Your task to perform on an android device: Open accessibility settings Image 0: 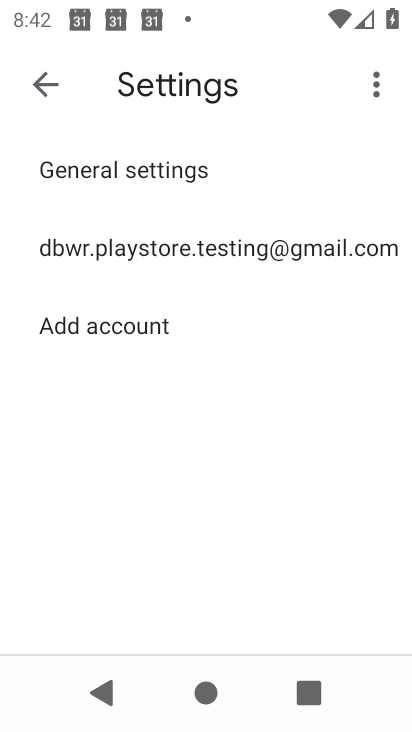
Step 0: press home button
Your task to perform on an android device: Open accessibility settings Image 1: 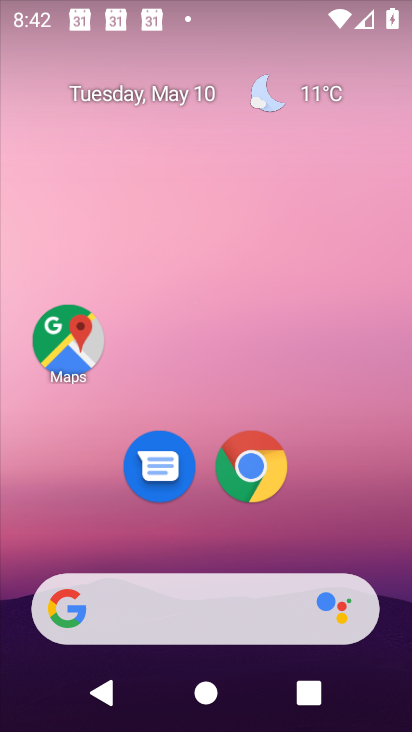
Step 1: drag from (221, 527) to (219, 11)
Your task to perform on an android device: Open accessibility settings Image 2: 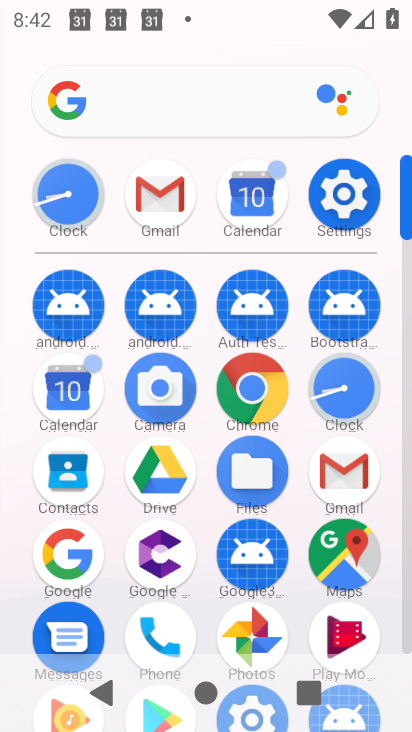
Step 2: click (358, 216)
Your task to perform on an android device: Open accessibility settings Image 3: 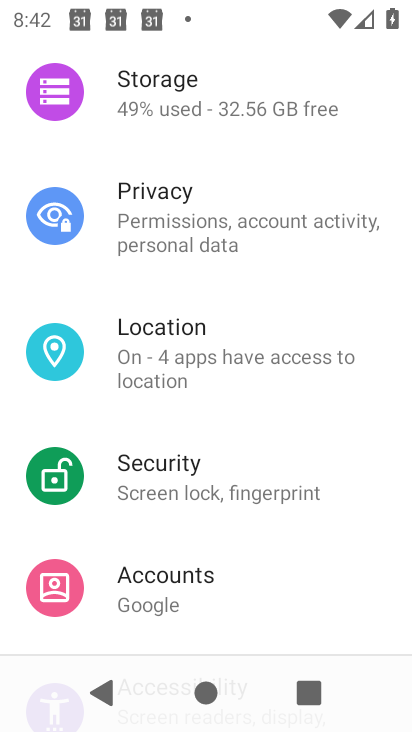
Step 3: drag from (226, 568) to (265, 190)
Your task to perform on an android device: Open accessibility settings Image 4: 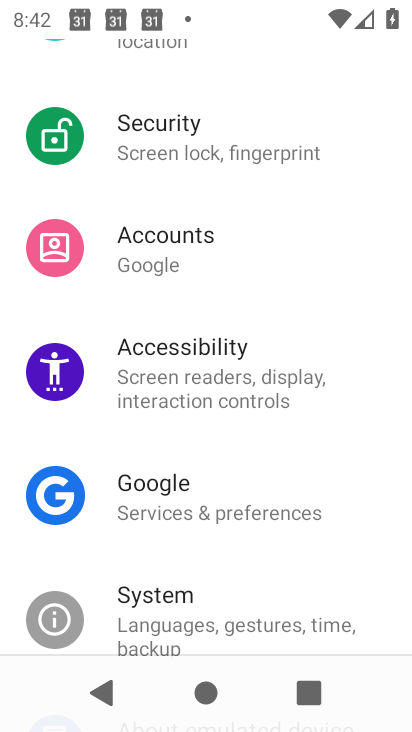
Step 4: click (194, 385)
Your task to perform on an android device: Open accessibility settings Image 5: 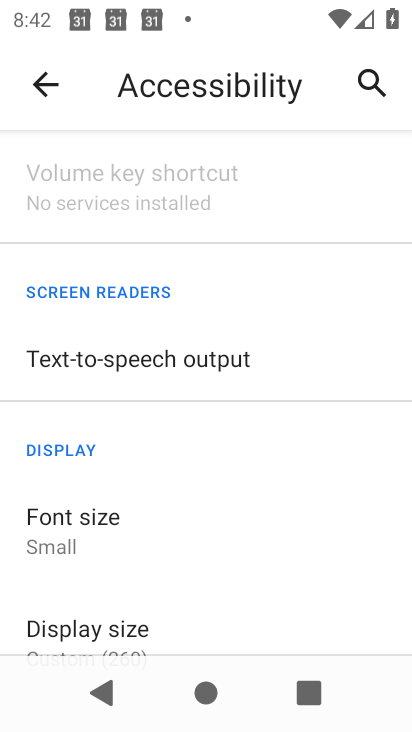
Step 5: task complete